Your task to perform on an android device: change text size in settings app Image 0: 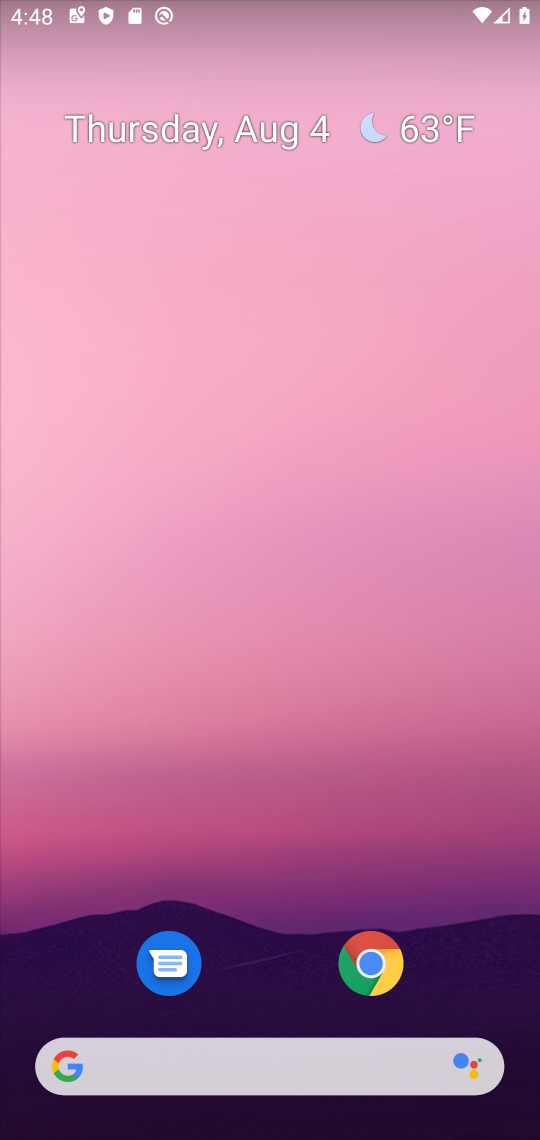
Step 0: drag from (293, 896) to (370, 9)
Your task to perform on an android device: change text size in settings app Image 1: 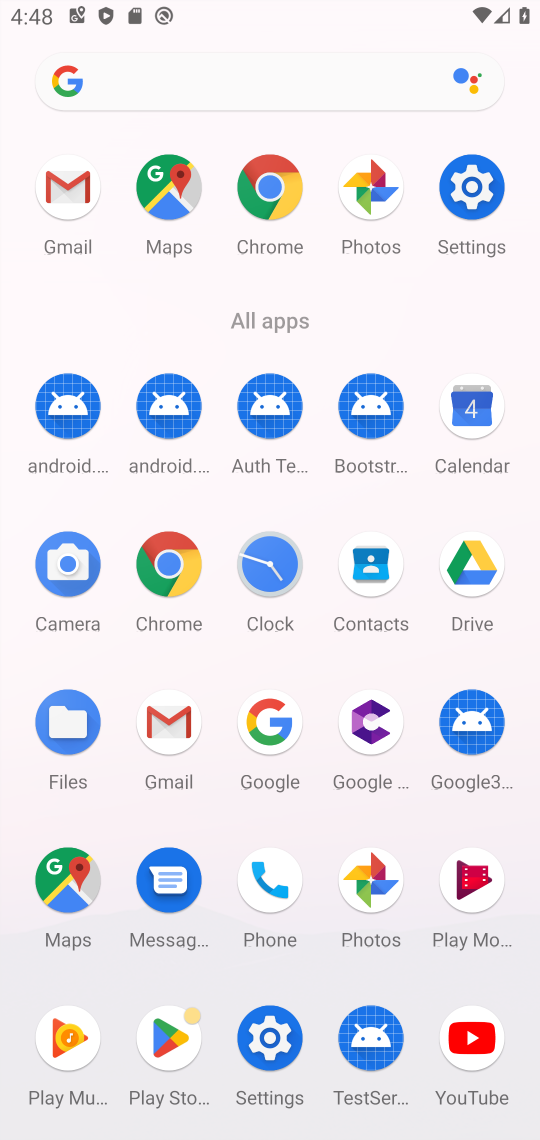
Step 1: click (477, 182)
Your task to perform on an android device: change text size in settings app Image 2: 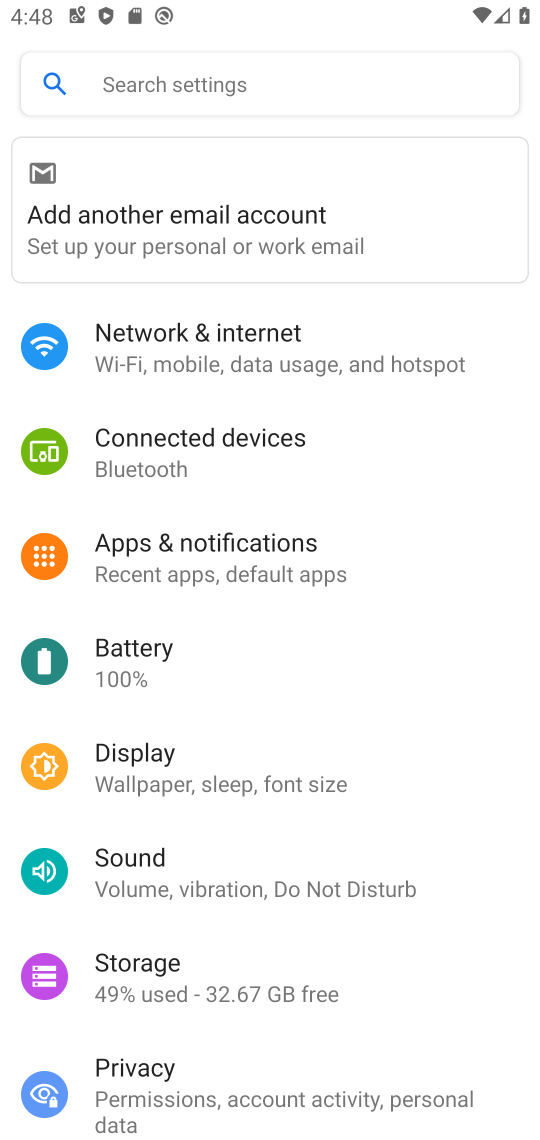
Step 2: click (141, 749)
Your task to perform on an android device: change text size in settings app Image 3: 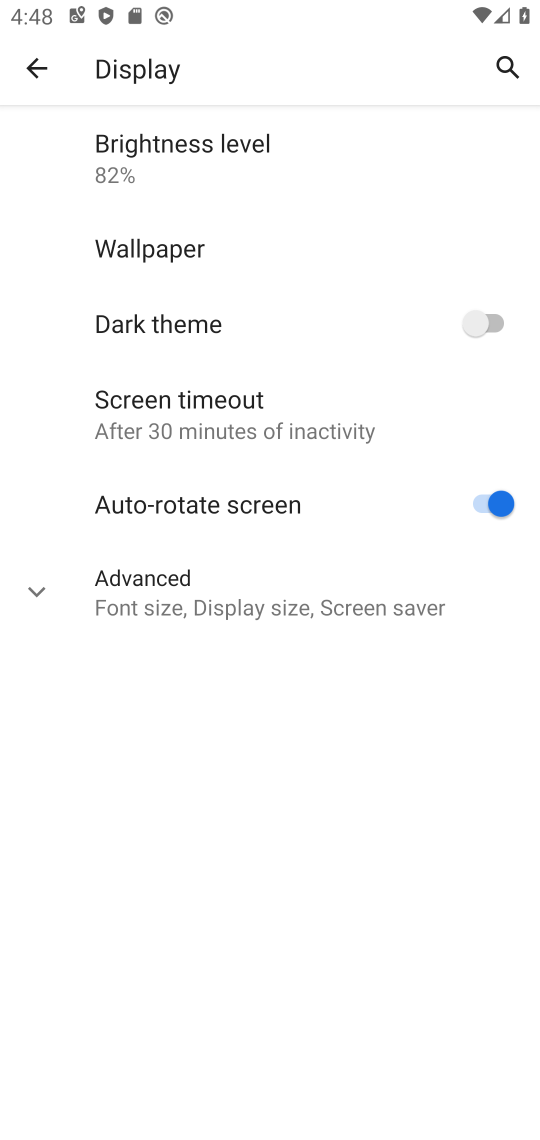
Step 3: click (111, 598)
Your task to perform on an android device: change text size in settings app Image 4: 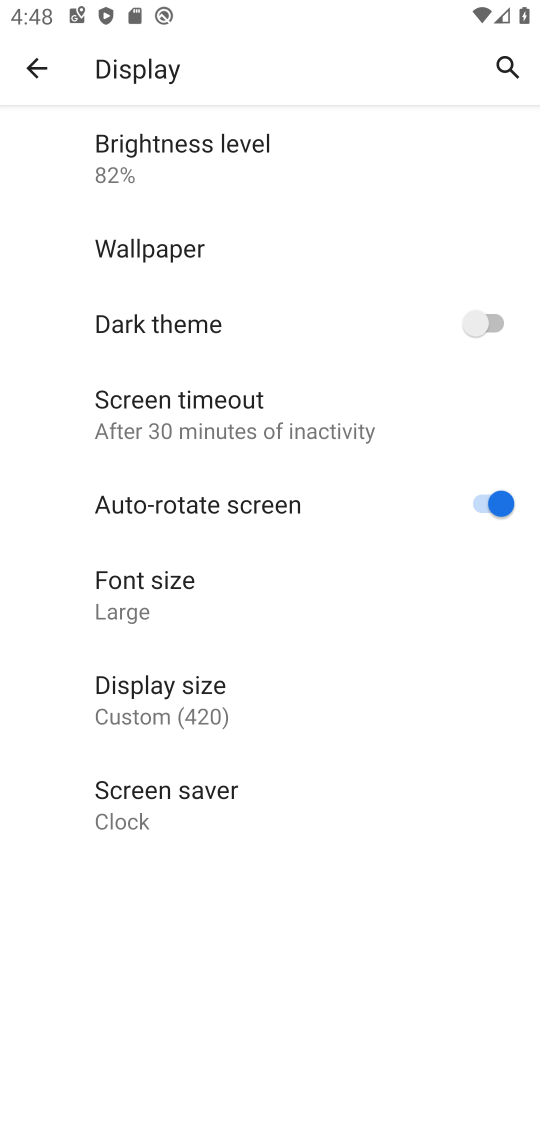
Step 4: click (146, 584)
Your task to perform on an android device: change text size in settings app Image 5: 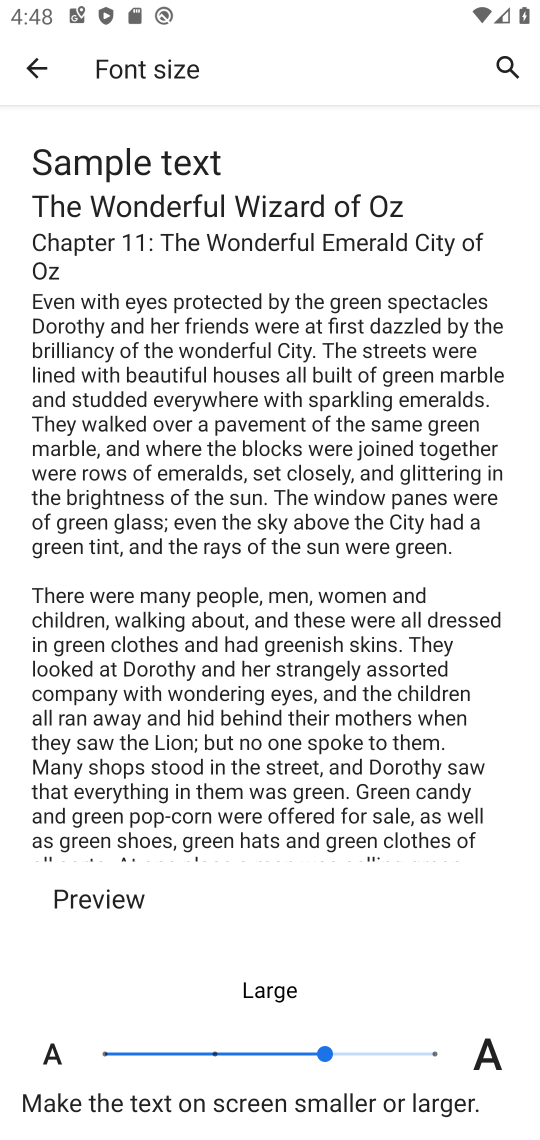
Step 5: click (223, 1056)
Your task to perform on an android device: change text size in settings app Image 6: 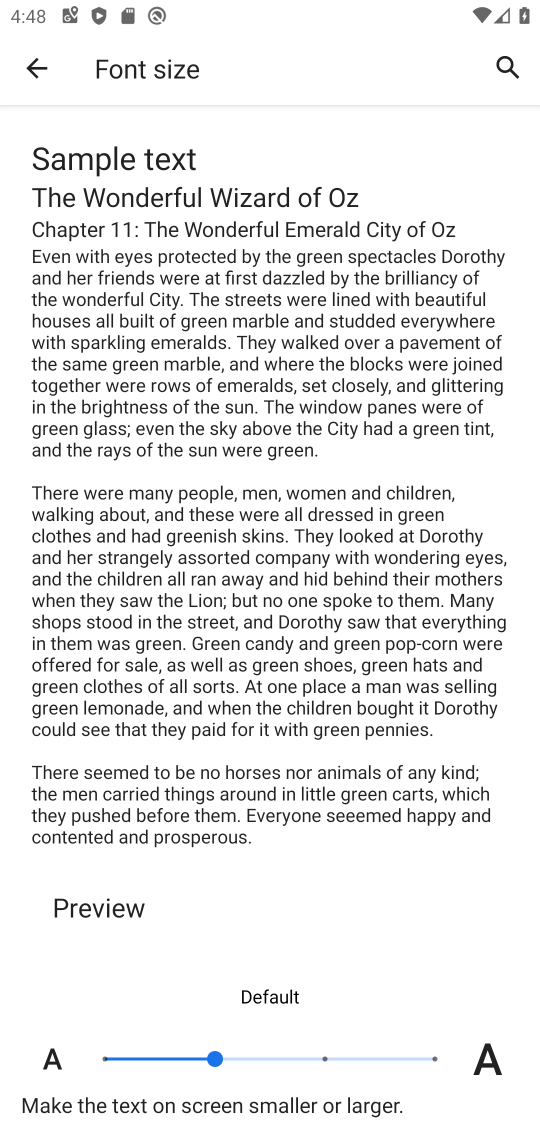
Step 6: task complete